Your task to perform on an android device: open app "Viber Messenger" (install if not already installed), go to login, and select forgot password Image 0: 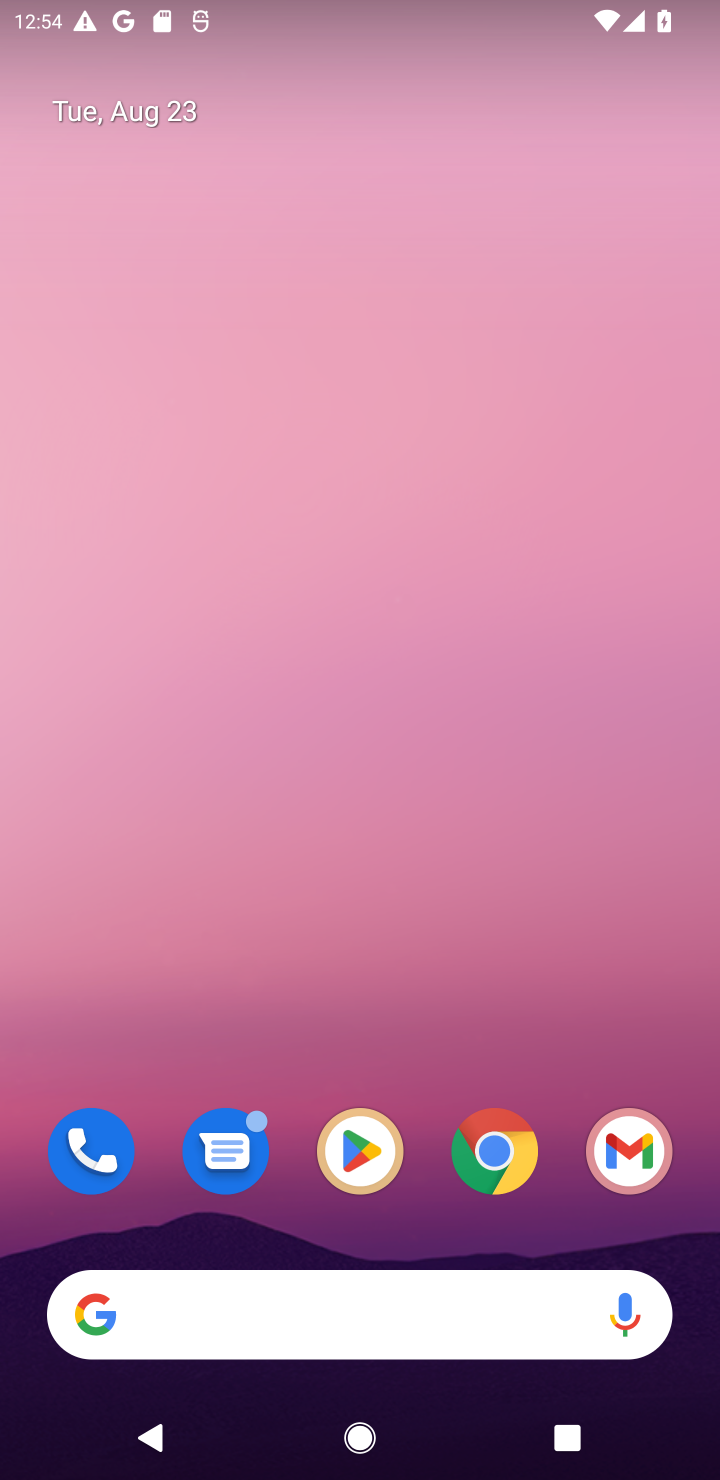
Step 0: click (372, 1160)
Your task to perform on an android device: open app "Viber Messenger" (install if not already installed), go to login, and select forgot password Image 1: 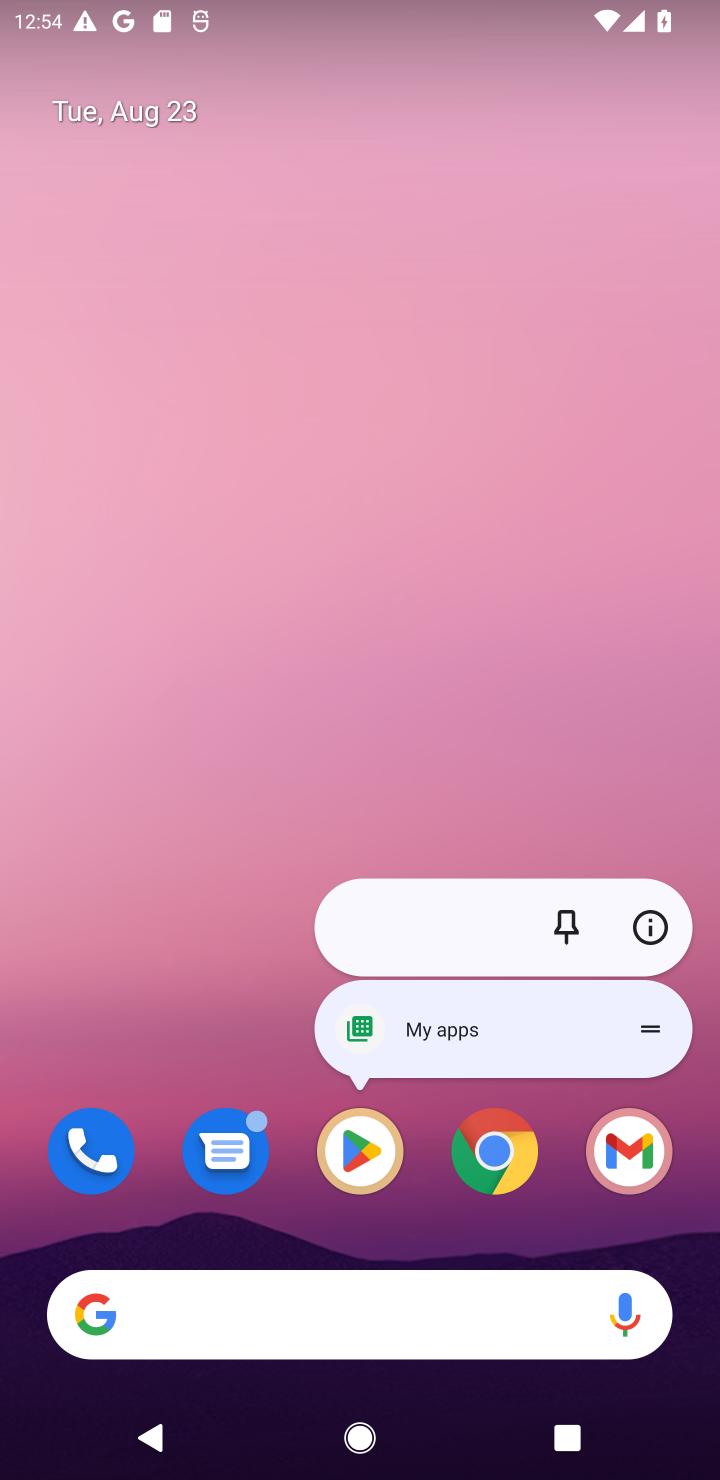
Step 1: click (340, 1152)
Your task to perform on an android device: open app "Viber Messenger" (install if not already installed), go to login, and select forgot password Image 2: 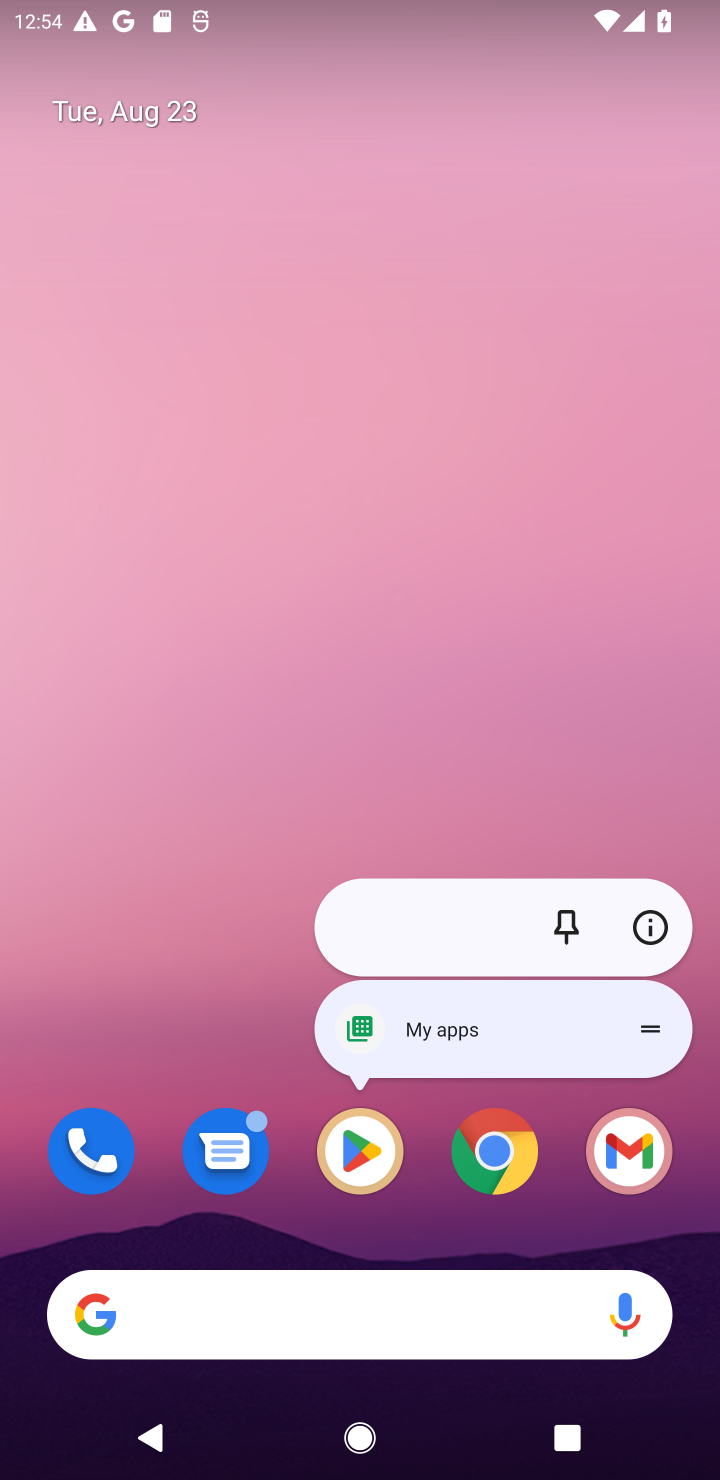
Step 2: click (340, 1152)
Your task to perform on an android device: open app "Viber Messenger" (install if not already installed), go to login, and select forgot password Image 3: 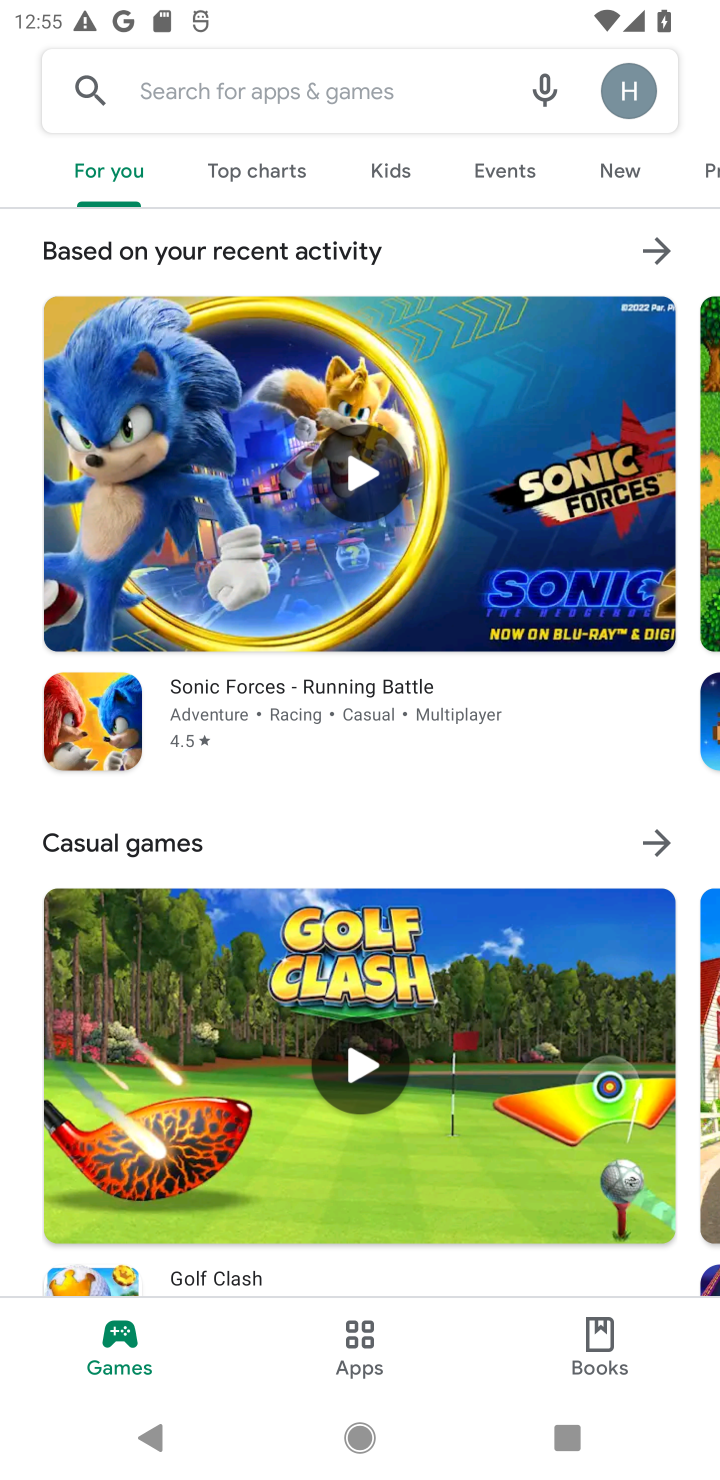
Step 3: click (99, 102)
Your task to perform on an android device: open app "Viber Messenger" (install if not already installed), go to login, and select forgot password Image 4: 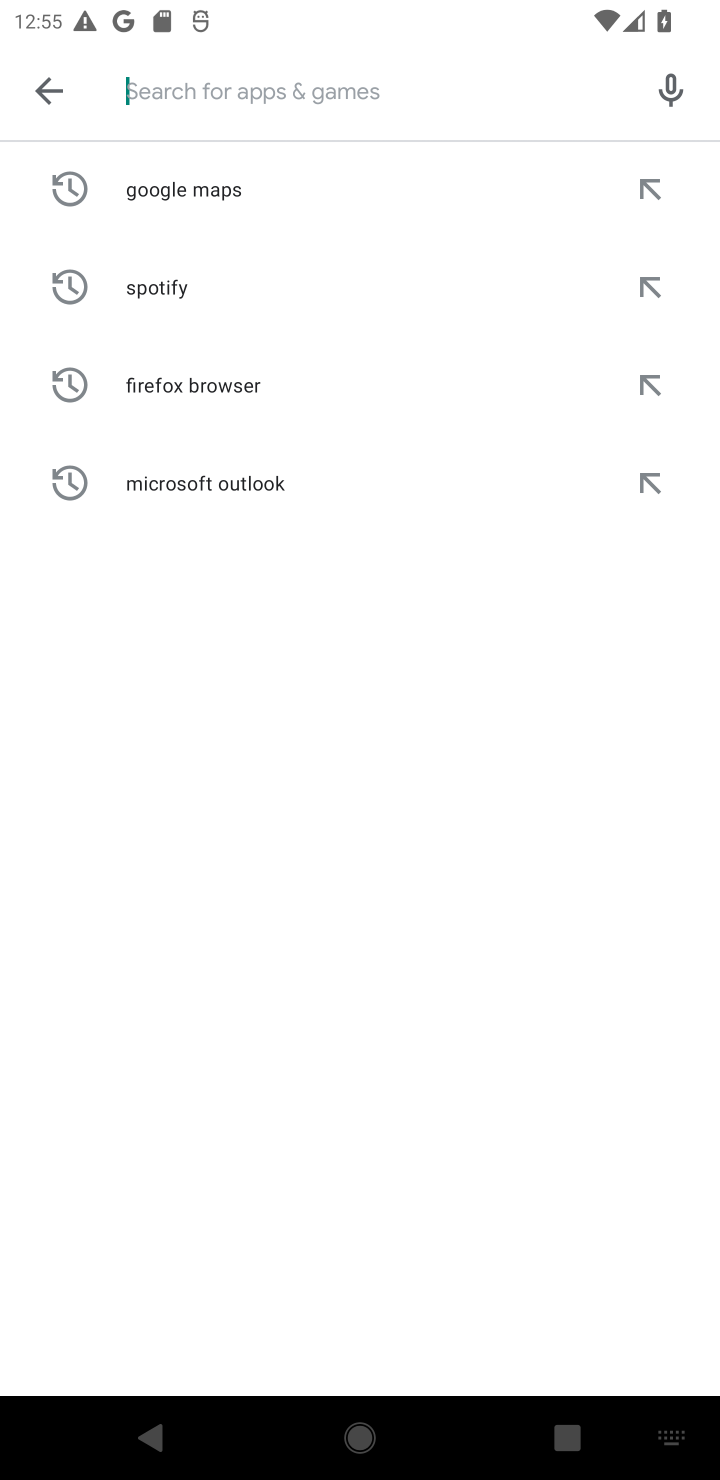
Step 4: type "Viber Messenger"
Your task to perform on an android device: open app "Viber Messenger" (install if not already installed), go to login, and select forgot password Image 5: 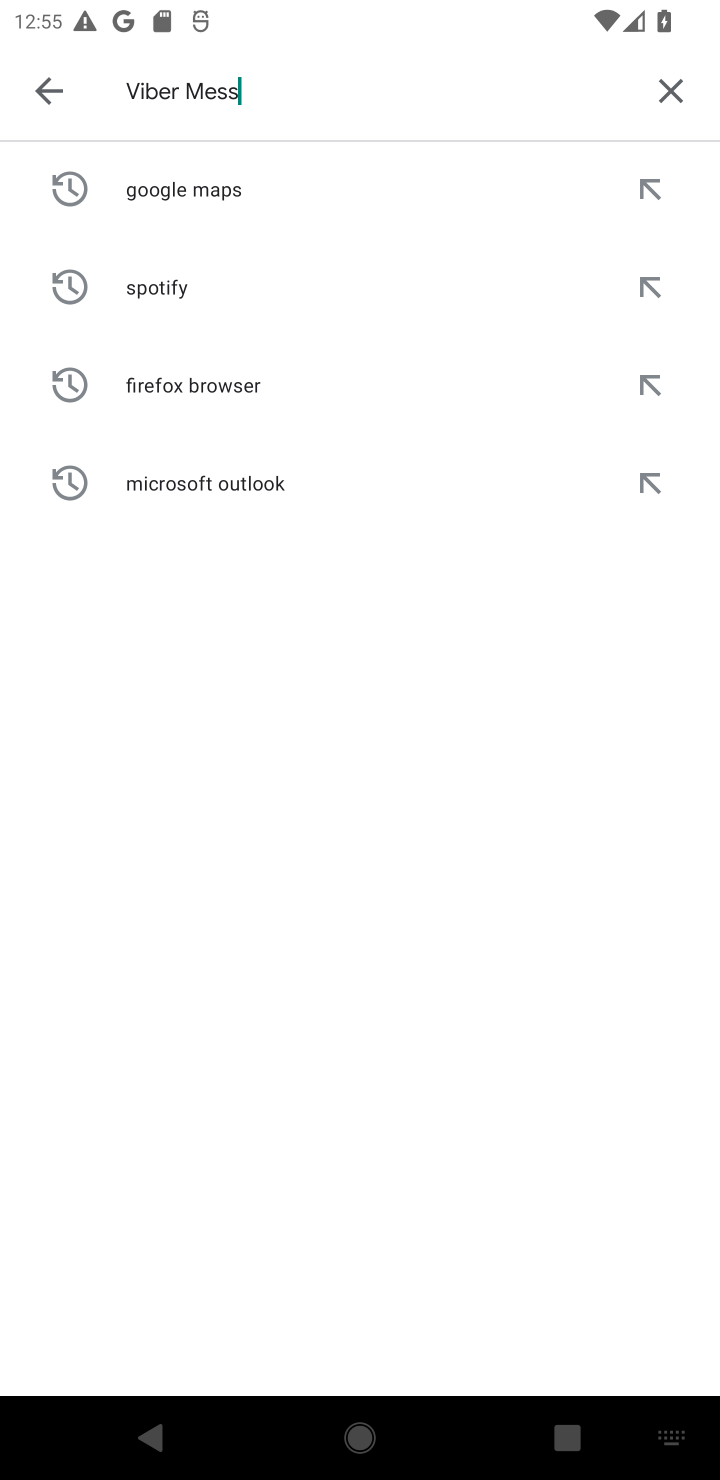
Step 5: type ""
Your task to perform on an android device: open app "Viber Messenger" (install if not already installed), go to login, and select forgot password Image 6: 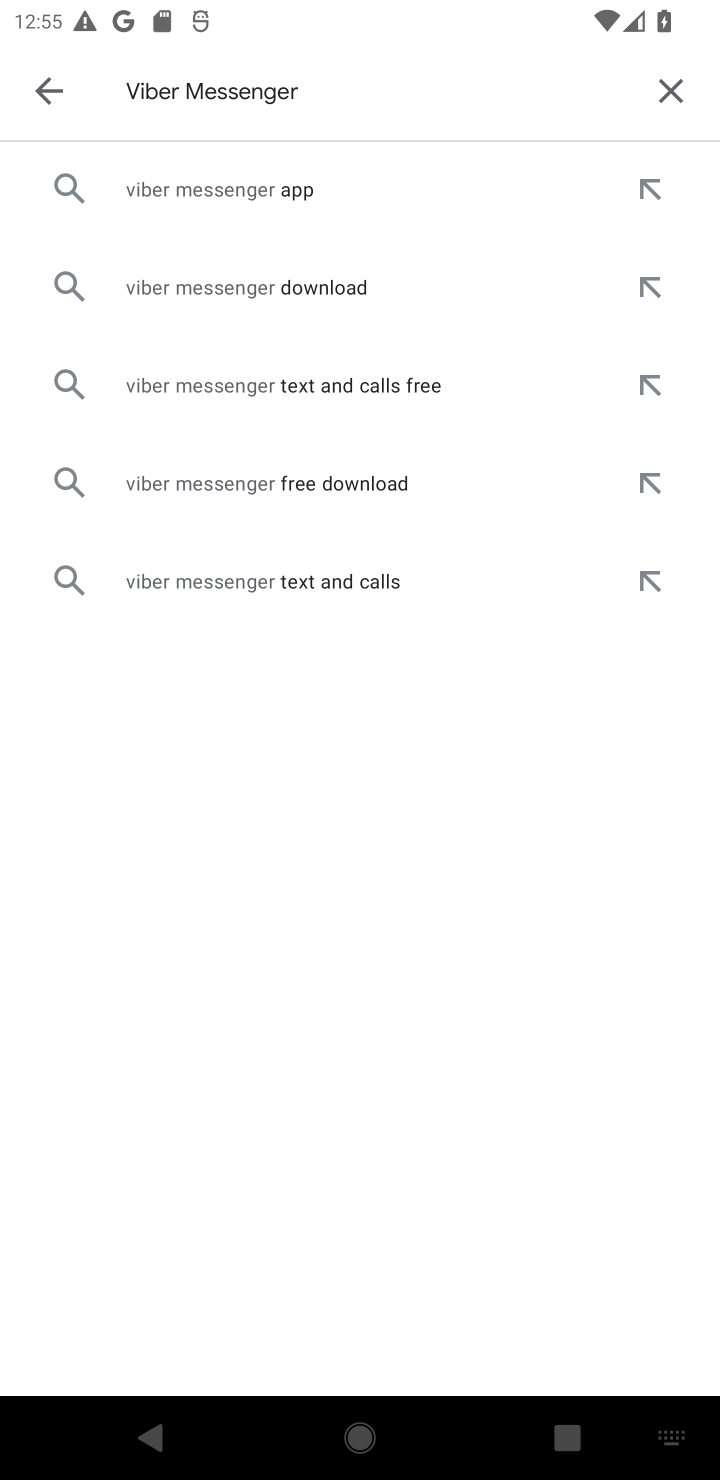
Step 6: click (290, 200)
Your task to perform on an android device: open app "Viber Messenger" (install if not already installed), go to login, and select forgot password Image 7: 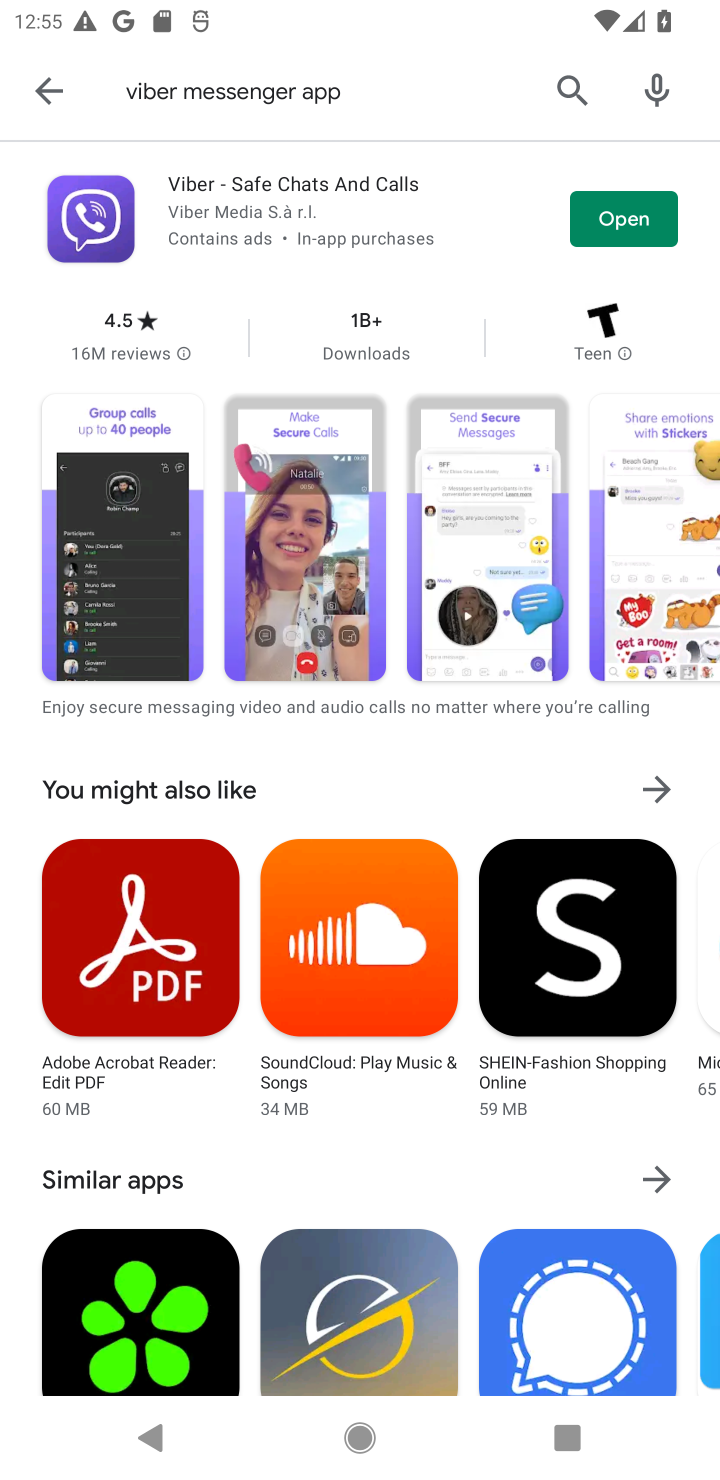
Step 7: click (619, 238)
Your task to perform on an android device: open app "Viber Messenger" (install if not already installed), go to login, and select forgot password Image 8: 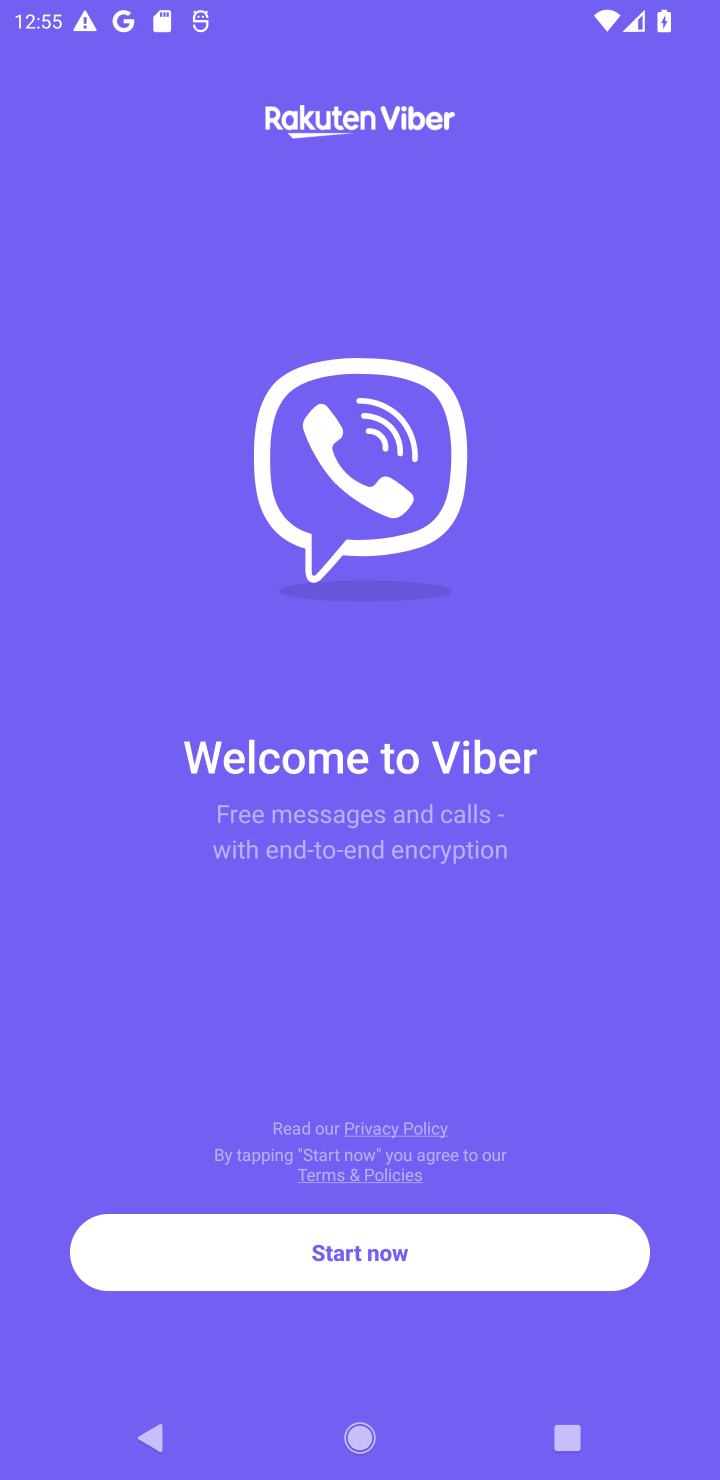
Step 8: task complete